Your task to perform on an android device: Go to Android settings Image 0: 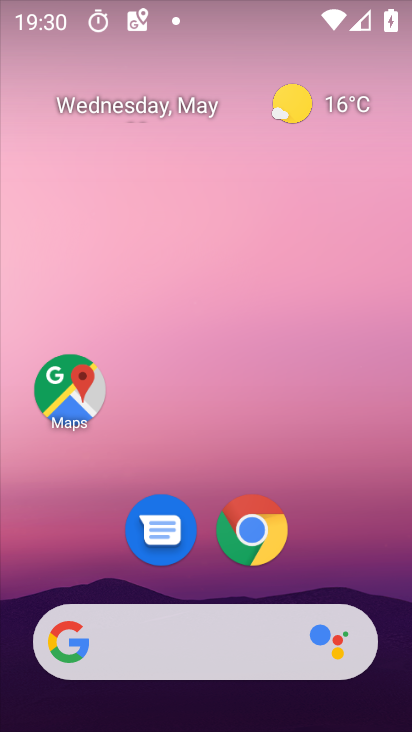
Step 0: drag from (181, 591) to (249, 188)
Your task to perform on an android device: Go to Android settings Image 1: 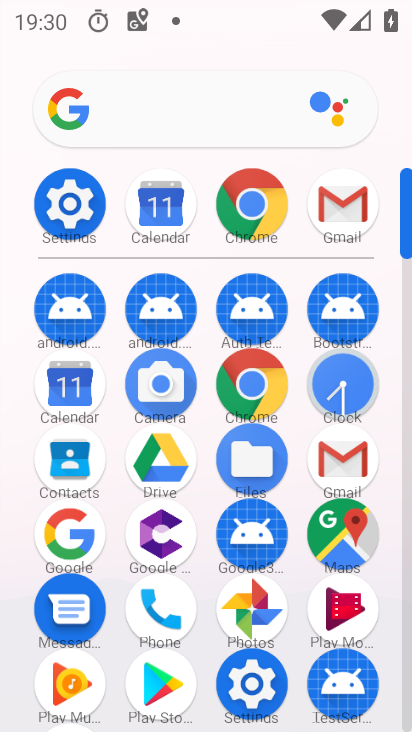
Step 1: click (77, 211)
Your task to perform on an android device: Go to Android settings Image 2: 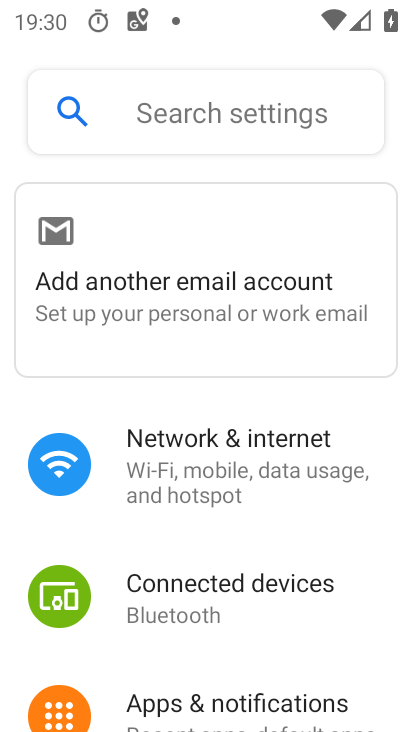
Step 2: drag from (211, 623) to (260, 304)
Your task to perform on an android device: Go to Android settings Image 3: 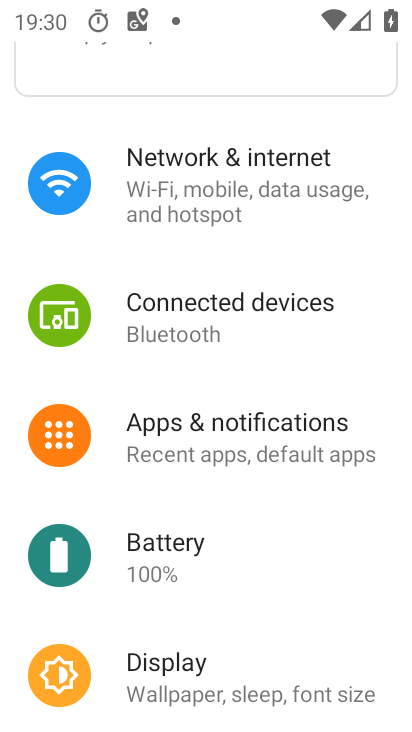
Step 3: drag from (178, 624) to (261, 240)
Your task to perform on an android device: Go to Android settings Image 4: 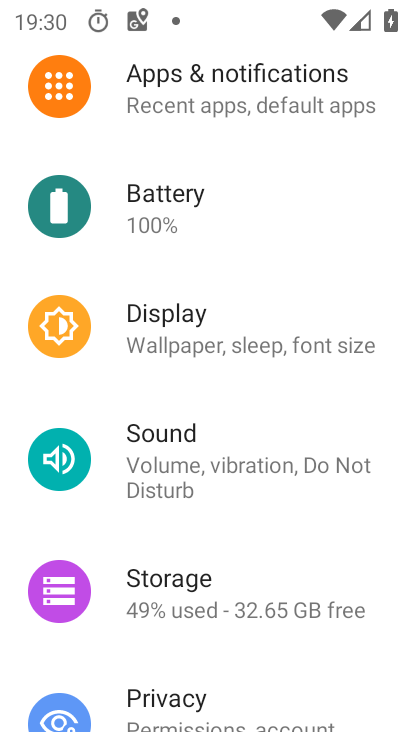
Step 4: drag from (174, 692) to (260, 329)
Your task to perform on an android device: Go to Android settings Image 5: 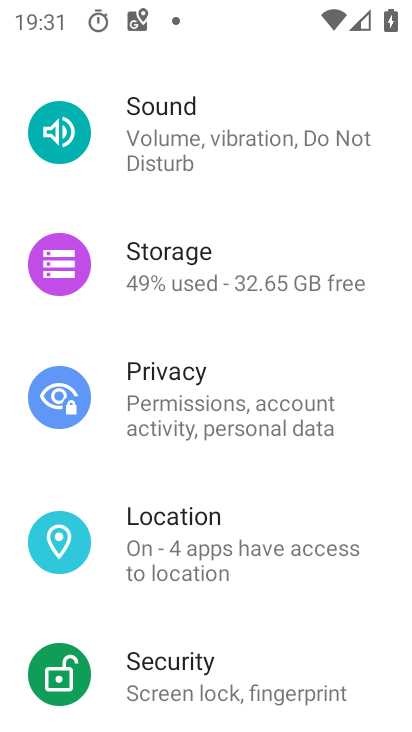
Step 5: drag from (248, 591) to (330, 202)
Your task to perform on an android device: Go to Android settings Image 6: 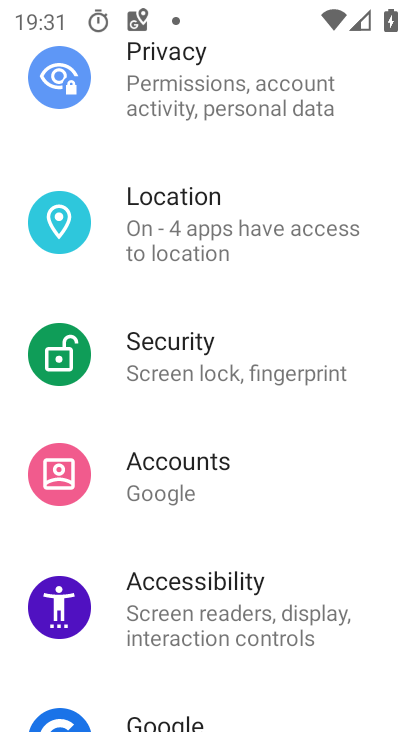
Step 6: drag from (255, 628) to (376, 235)
Your task to perform on an android device: Go to Android settings Image 7: 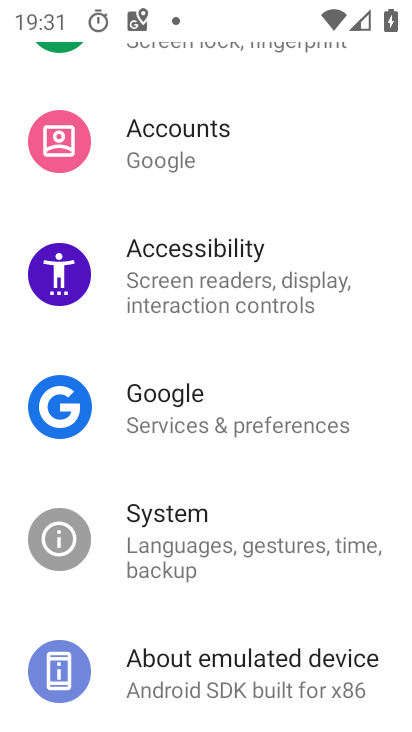
Step 7: drag from (300, 598) to (333, 405)
Your task to perform on an android device: Go to Android settings Image 8: 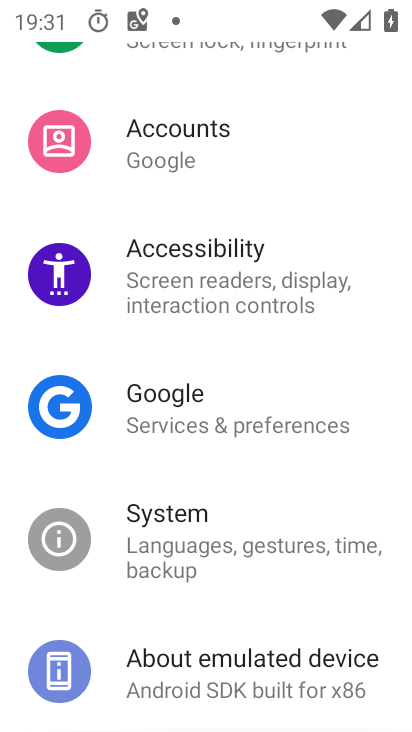
Step 8: click (207, 648)
Your task to perform on an android device: Go to Android settings Image 9: 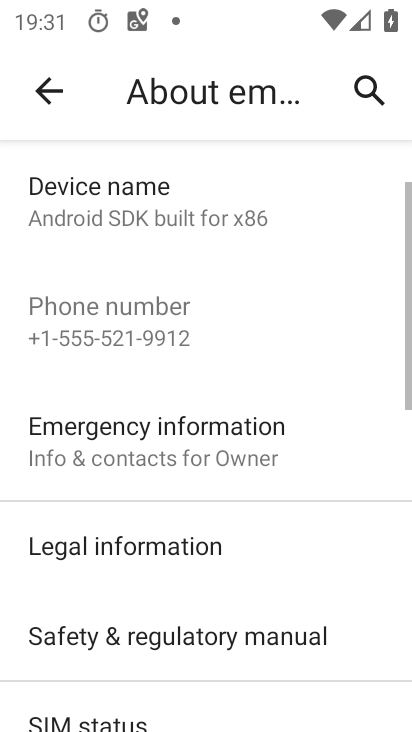
Step 9: click (62, 93)
Your task to perform on an android device: Go to Android settings Image 10: 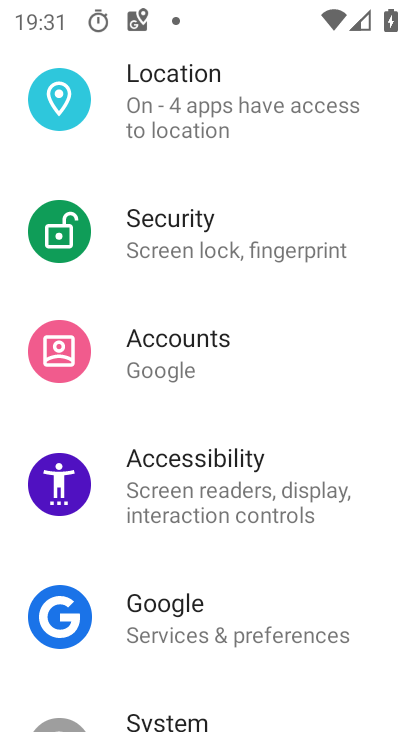
Step 10: drag from (212, 665) to (330, 197)
Your task to perform on an android device: Go to Android settings Image 11: 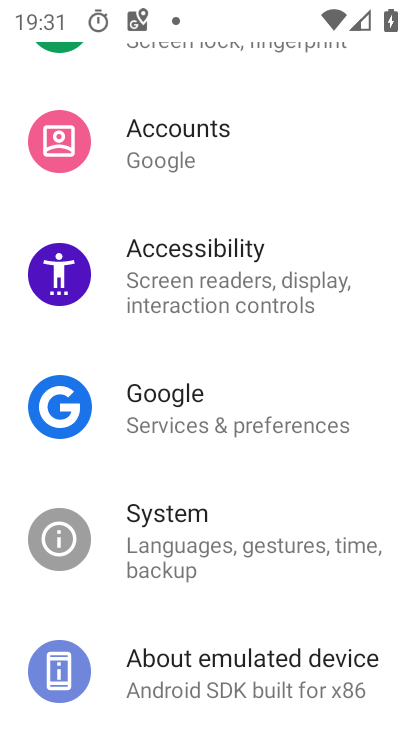
Step 11: click (140, 644)
Your task to perform on an android device: Go to Android settings Image 12: 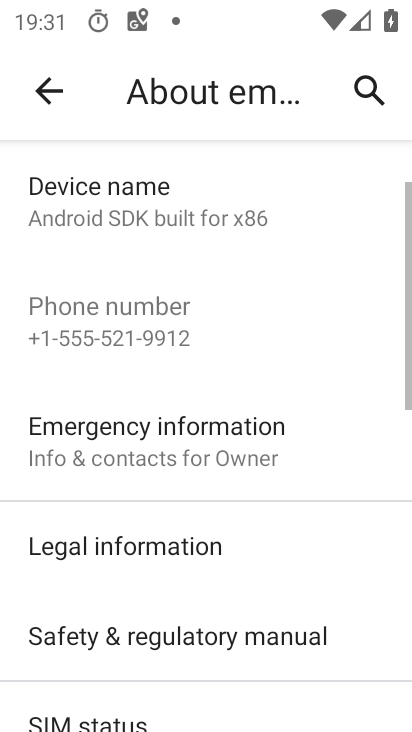
Step 12: drag from (115, 638) to (188, 314)
Your task to perform on an android device: Go to Android settings Image 13: 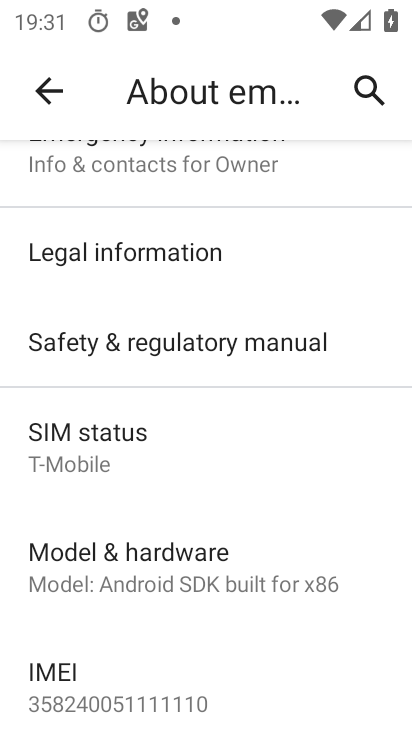
Step 13: drag from (116, 629) to (176, 337)
Your task to perform on an android device: Go to Android settings Image 14: 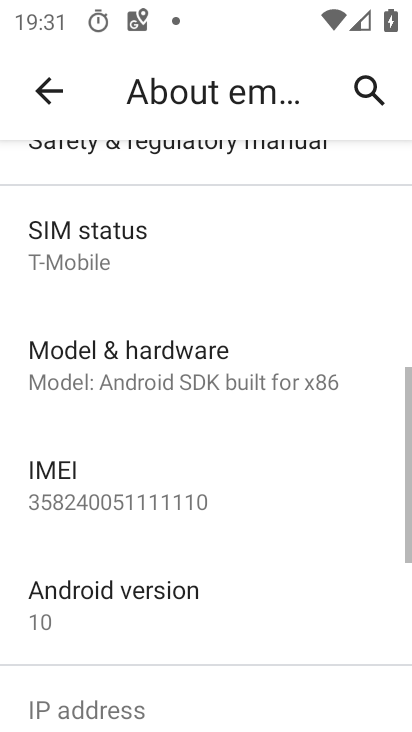
Step 14: click (83, 624)
Your task to perform on an android device: Go to Android settings Image 15: 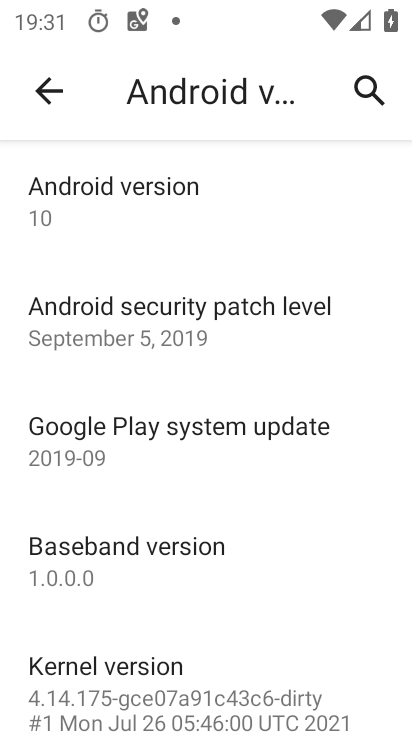
Step 15: task complete